Your task to perform on an android device: See recent photos Image 0: 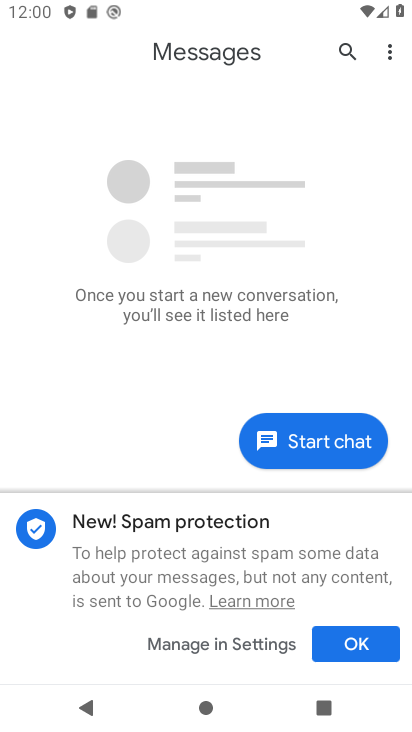
Step 0: press home button
Your task to perform on an android device: See recent photos Image 1: 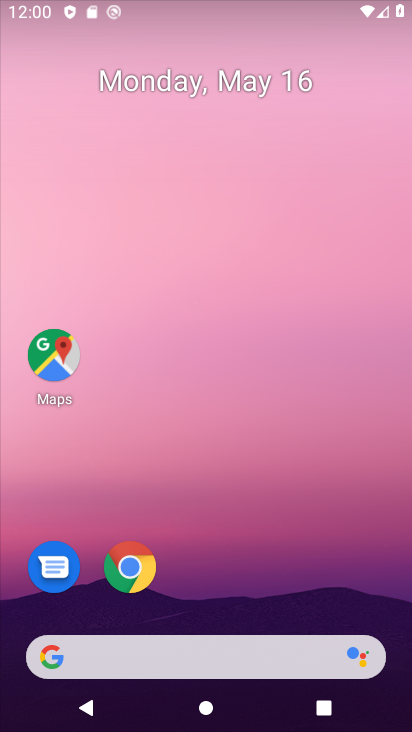
Step 1: drag from (269, 552) to (330, 108)
Your task to perform on an android device: See recent photos Image 2: 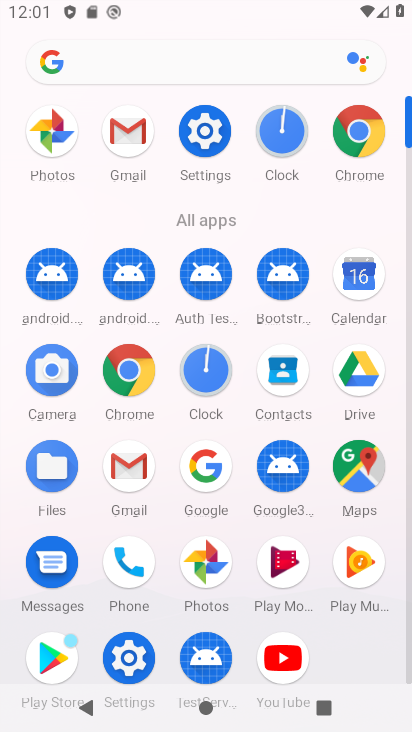
Step 2: click (52, 126)
Your task to perform on an android device: See recent photos Image 3: 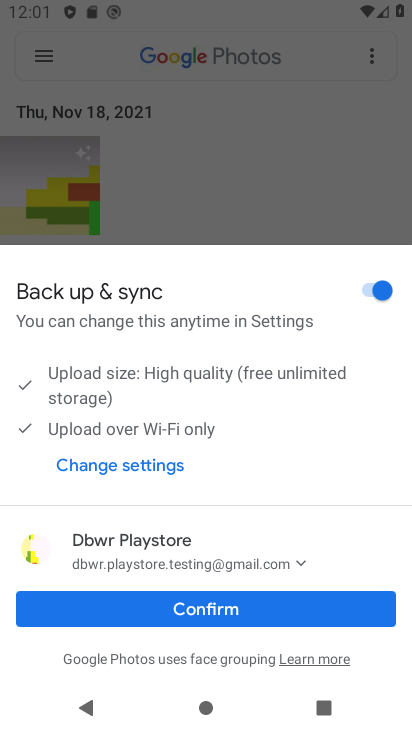
Step 3: click (214, 611)
Your task to perform on an android device: See recent photos Image 4: 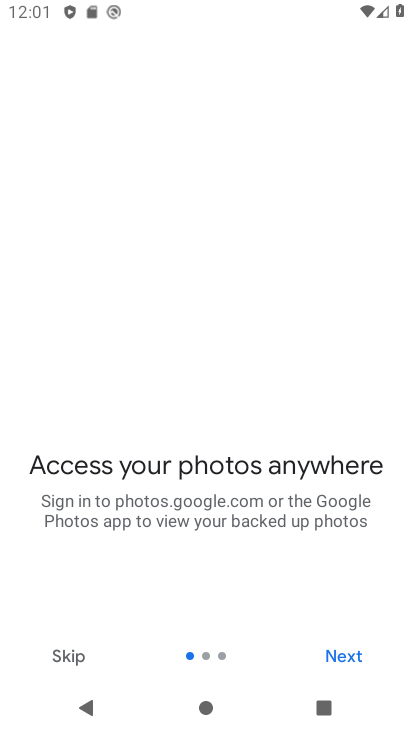
Step 4: click (353, 654)
Your task to perform on an android device: See recent photos Image 5: 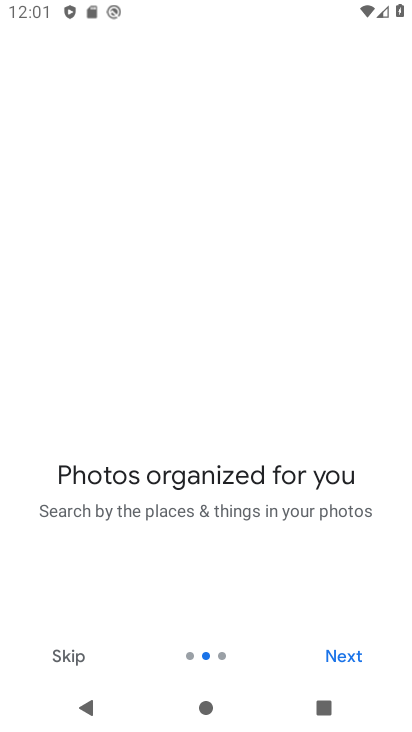
Step 5: click (353, 654)
Your task to perform on an android device: See recent photos Image 6: 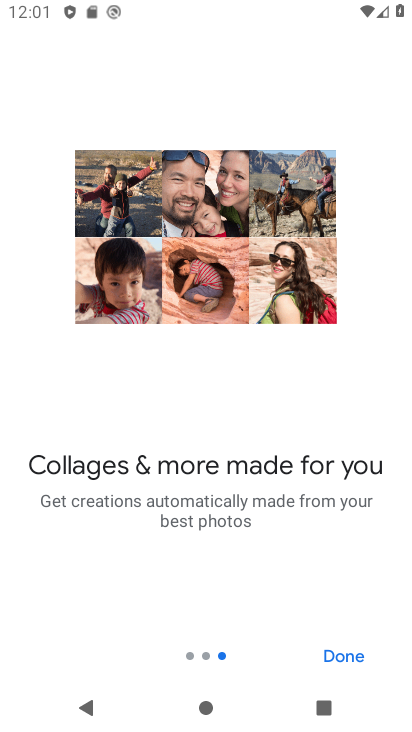
Step 6: click (353, 654)
Your task to perform on an android device: See recent photos Image 7: 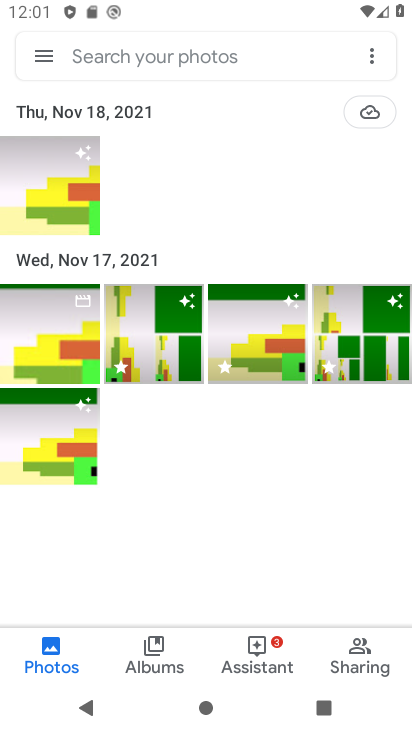
Step 7: task complete